Your task to perform on an android device: Go to ESPN.com Image 0: 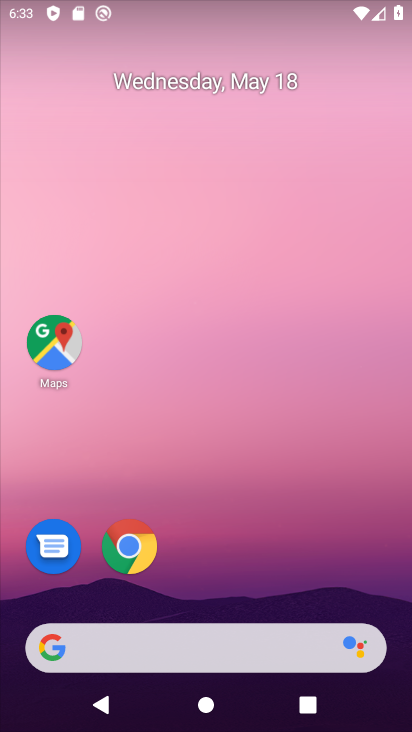
Step 0: drag from (399, 623) to (315, 123)
Your task to perform on an android device: Go to ESPN.com Image 1: 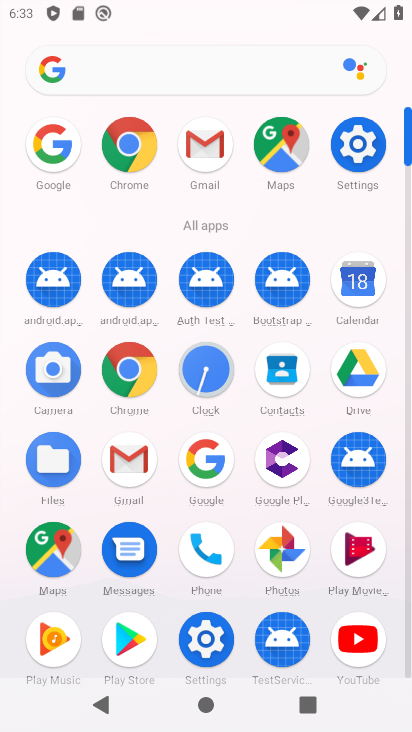
Step 1: click (64, 149)
Your task to perform on an android device: Go to ESPN.com Image 2: 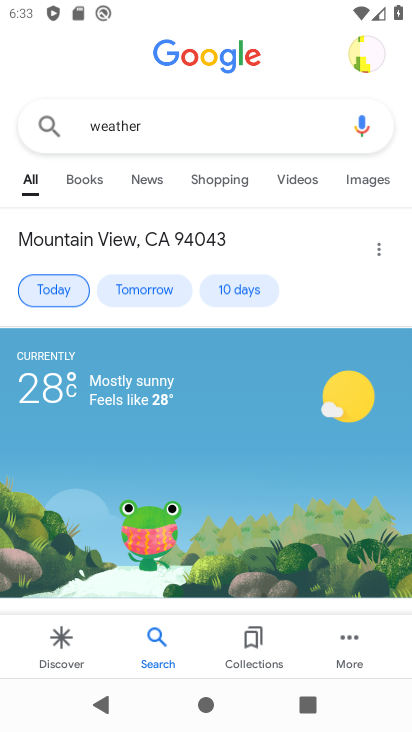
Step 2: press back button
Your task to perform on an android device: Go to ESPN.com Image 3: 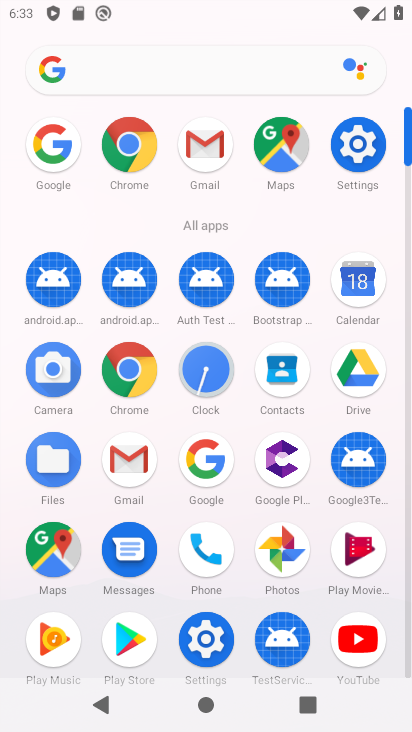
Step 3: click (135, 375)
Your task to perform on an android device: Go to ESPN.com Image 4: 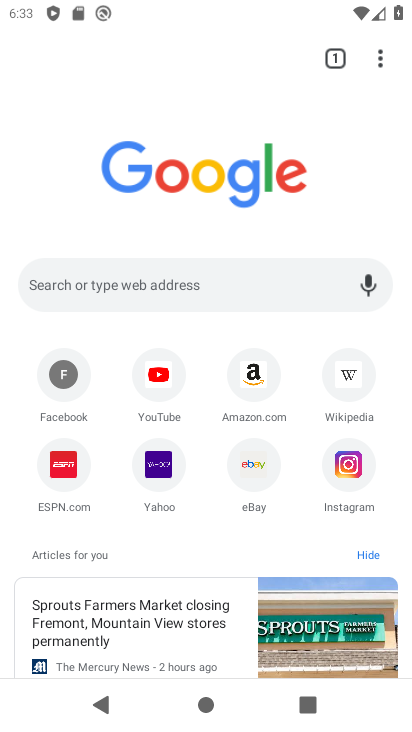
Step 4: click (71, 463)
Your task to perform on an android device: Go to ESPN.com Image 5: 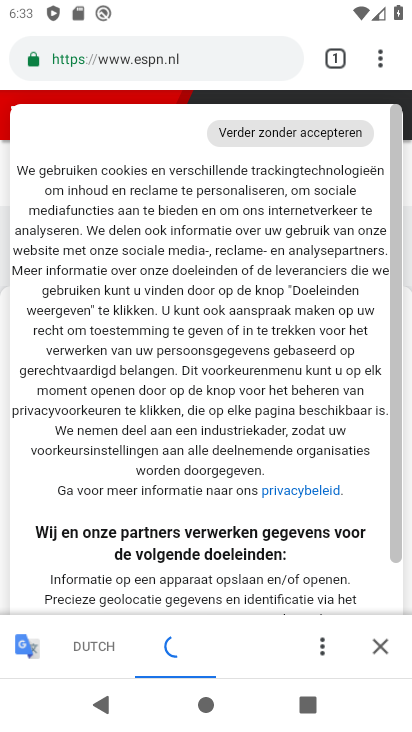
Step 5: task complete